Your task to perform on an android device: Empty the shopping cart on costco. Add "jbl charge 4" to the cart on costco Image 0: 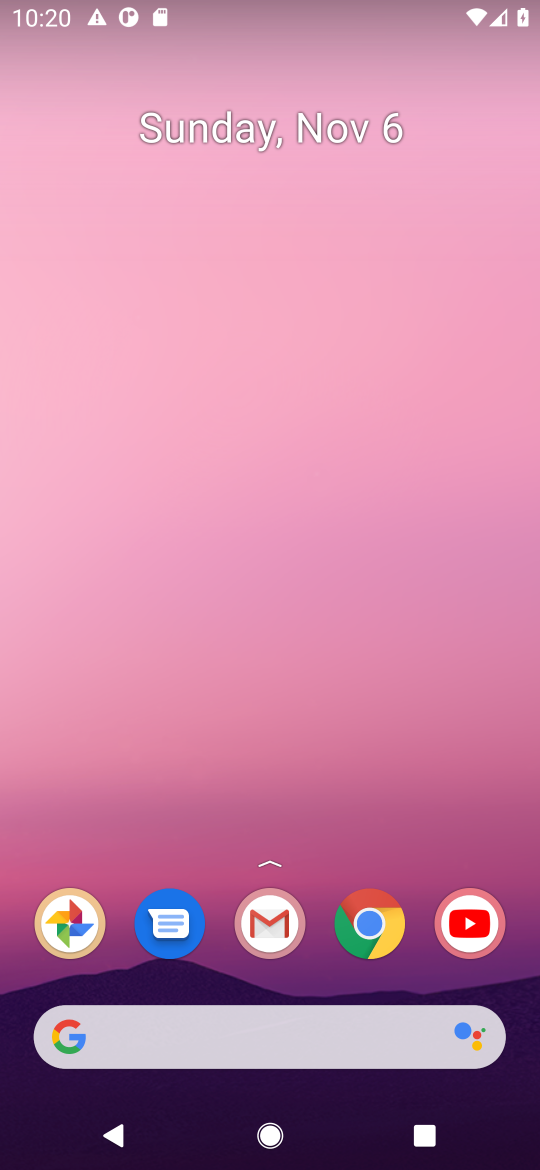
Step 0: click (373, 937)
Your task to perform on an android device: Empty the shopping cart on costco. Add "jbl charge 4" to the cart on costco Image 1: 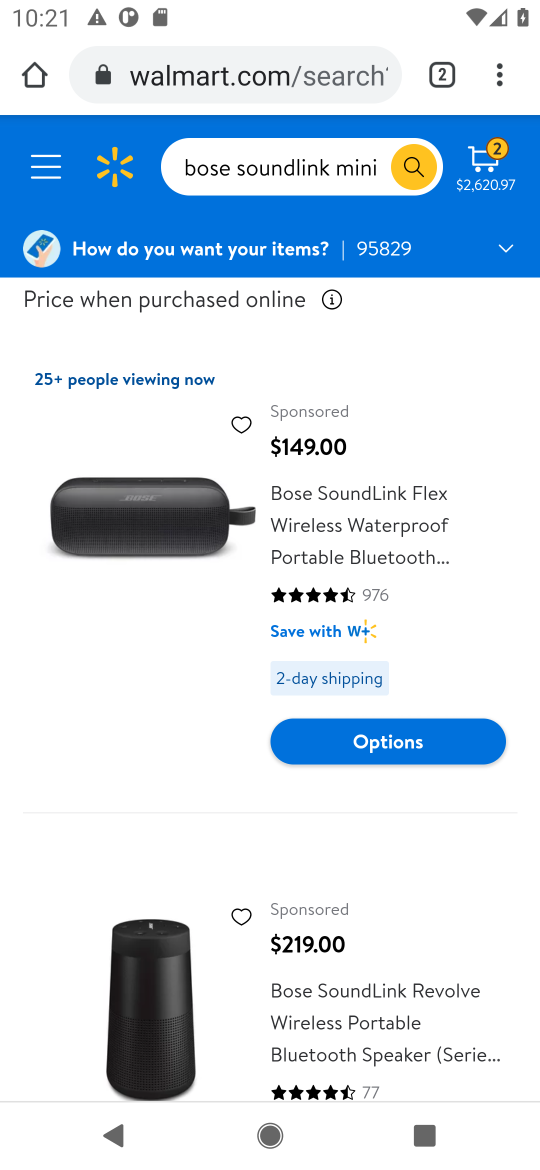
Step 1: click (214, 75)
Your task to perform on an android device: Empty the shopping cart on costco. Add "jbl charge 4" to the cart on costco Image 2: 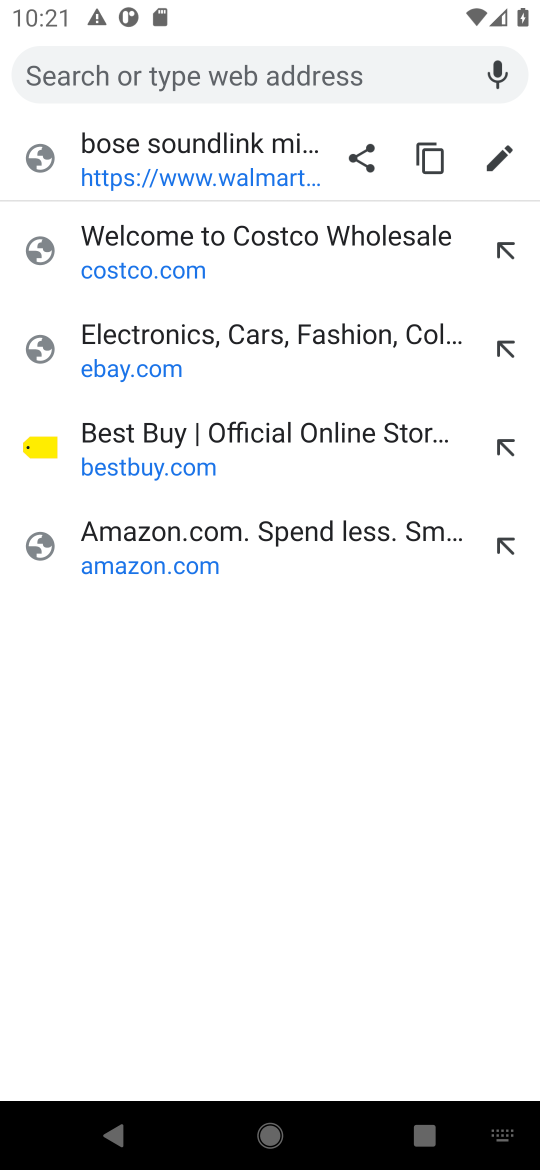
Step 2: click (166, 276)
Your task to perform on an android device: Empty the shopping cart on costco. Add "jbl charge 4" to the cart on costco Image 3: 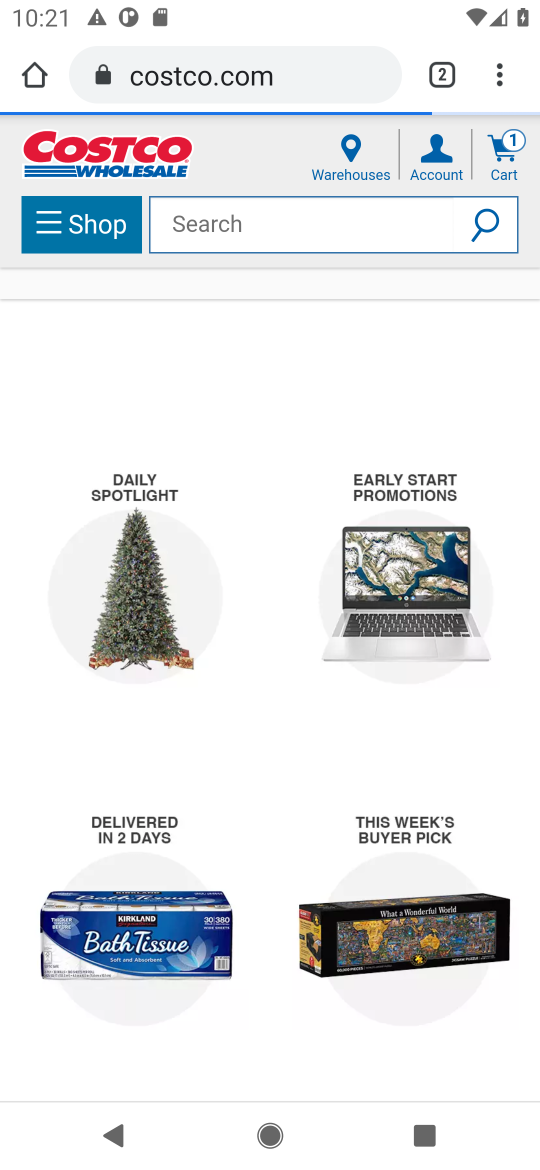
Step 3: click (514, 143)
Your task to perform on an android device: Empty the shopping cart on costco. Add "jbl charge 4" to the cart on costco Image 4: 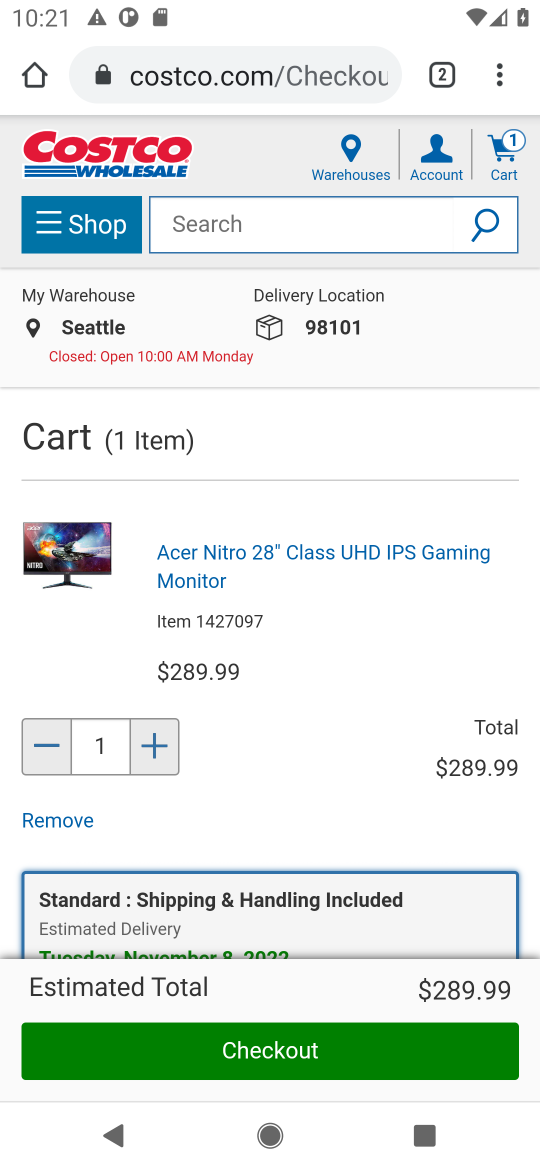
Step 4: drag from (259, 789) to (249, 319)
Your task to perform on an android device: Empty the shopping cart on costco. Add "jbl charge 4" to the cart on costco Image 5: 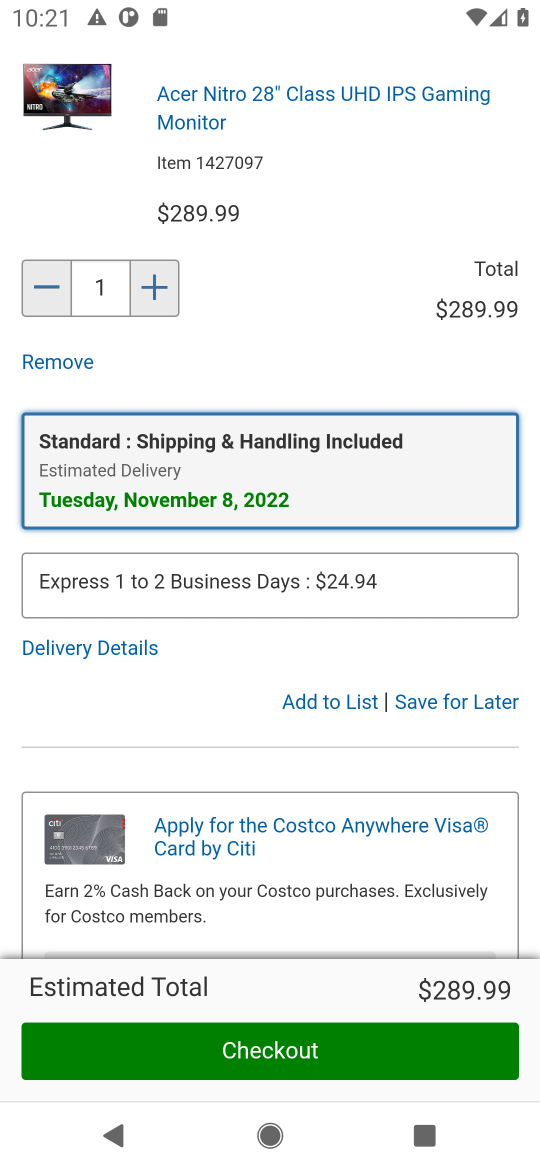
Step 5: click (477, 695)
Your task to perform on an android device: Empty the shopping cart on costco. Add "jbl charge 4" to the cart on costco Image 6: 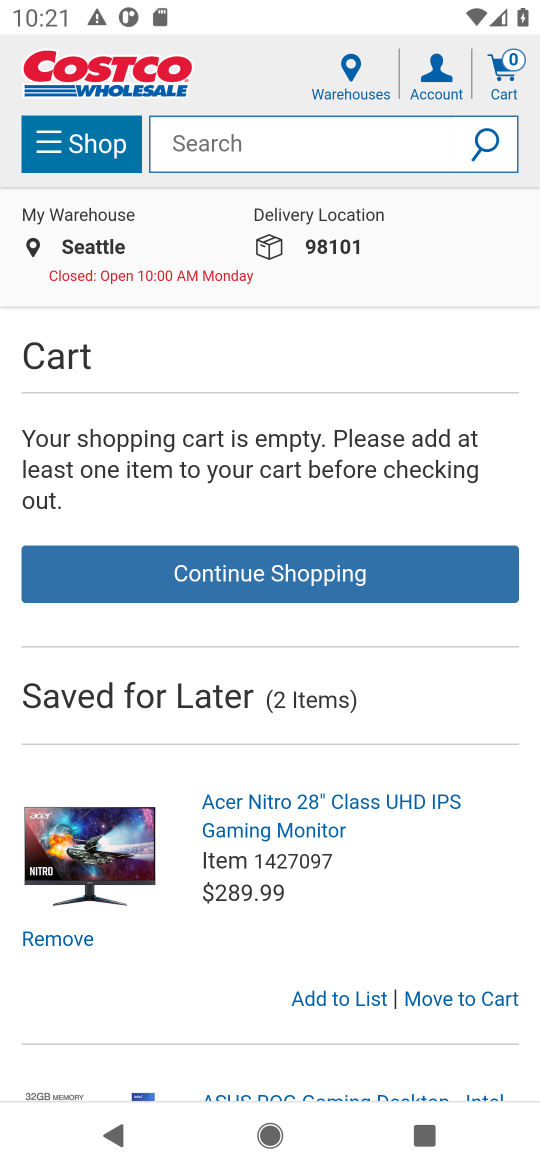
Step 6: click (343, 146)
Your task to perform on an android device: Empty the shopping cart on costco. Add "jbl charge 4" to the cart on costco Image 7: 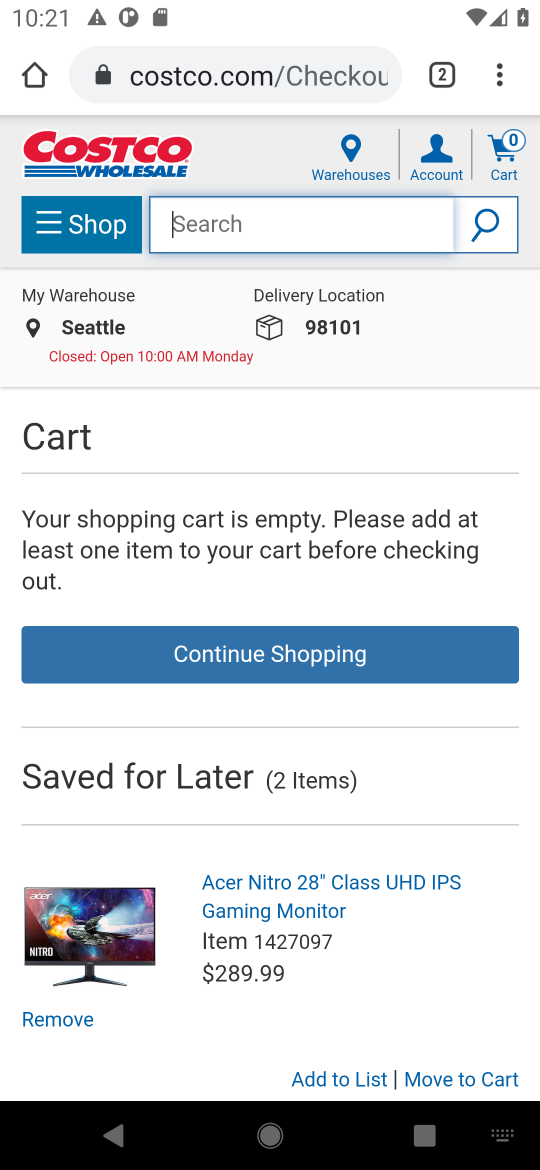
Step 7: type "jbl charge 4"
Your task to perform on an android device: Empty the shopping cart on costco. Add "jbl charge 4" to the cart on costco Image 8: 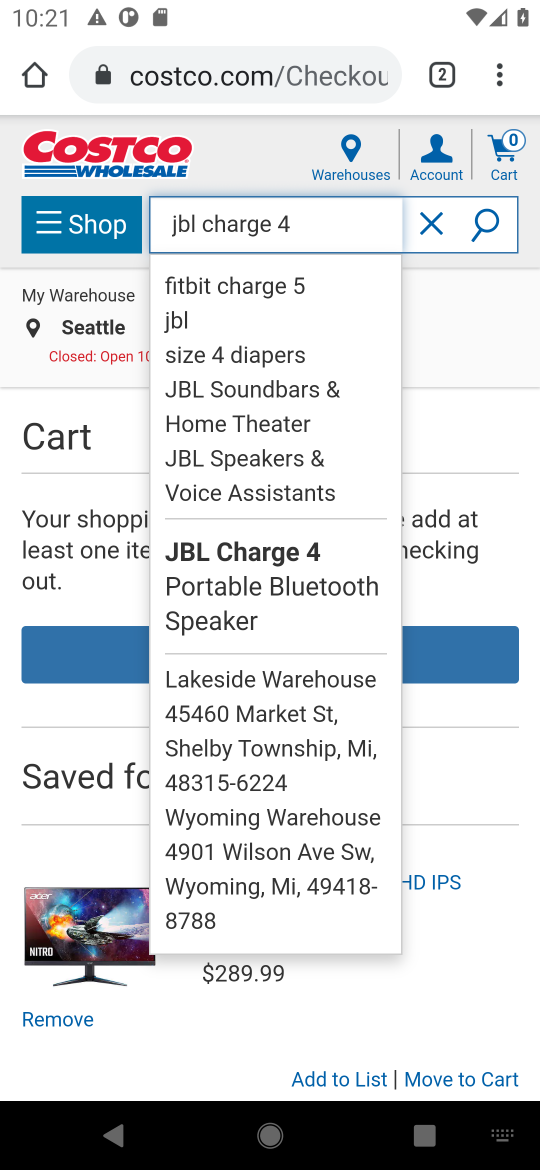
Step 8: click (492, 233)
Your task to perform on an android device: Empty the shopping cart on costco. Add "jbl charge 4" to the cart on costco Image 9: 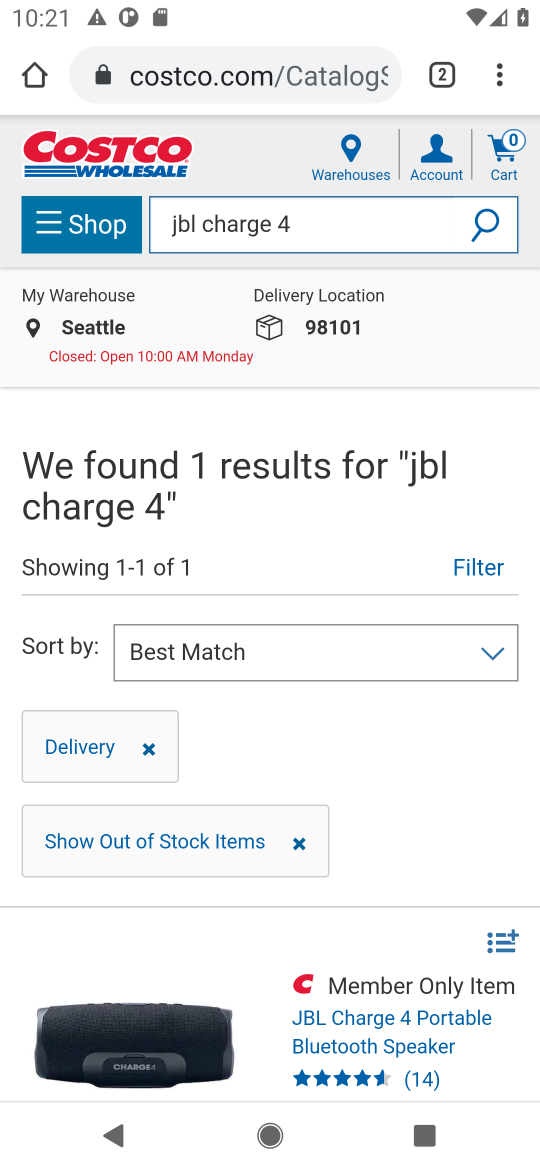
Step 9: drag from (401, 808) to (399, 403)
Your task to perform on an android device: Empty the shopping cart on costco. Add "jbl charge 4" to the cart on costco Image 10: 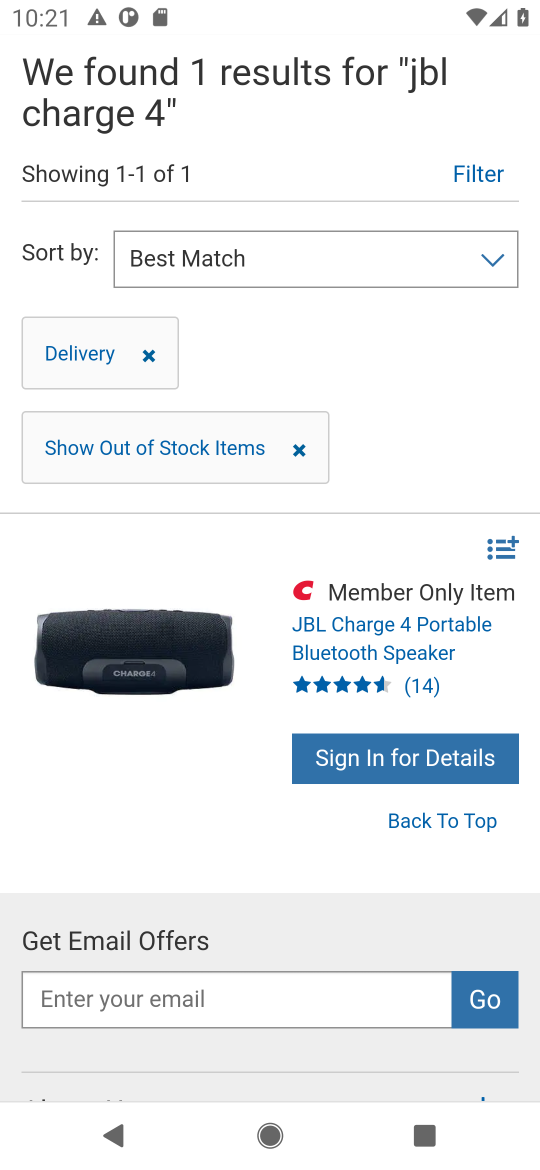
Step 10: click (347, 648)
Your task to perform on an android device: Empty the shopping cart on costco. Add "jbl charge 4" to the cart on costco Image 11: 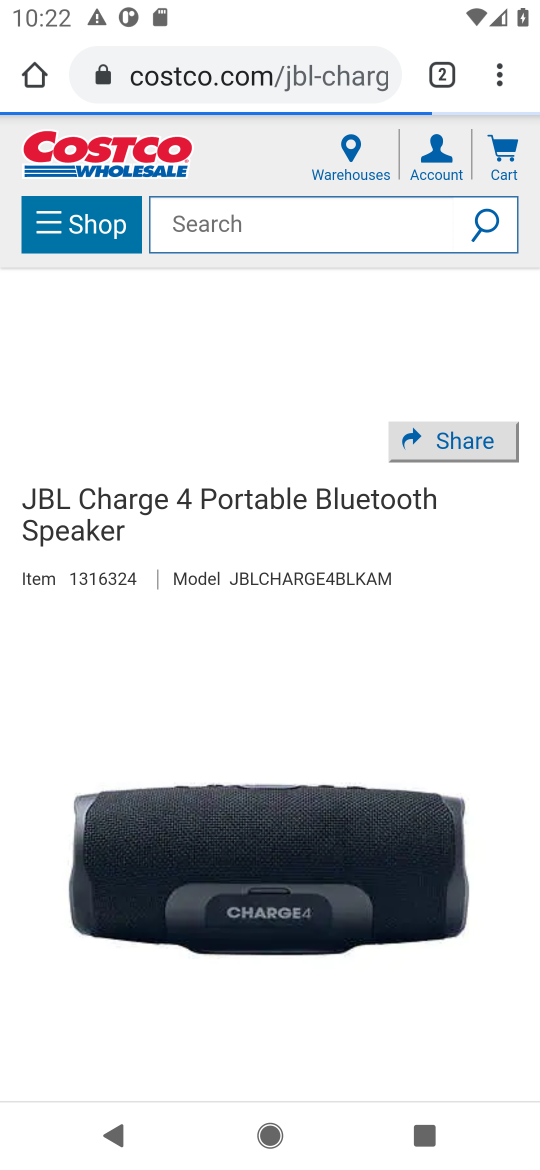
Step 11: press back button
Your task to perform on an android device: Empty the shopping cart on costco. Add "jbl charge 4" to the cart on costco Image 12: 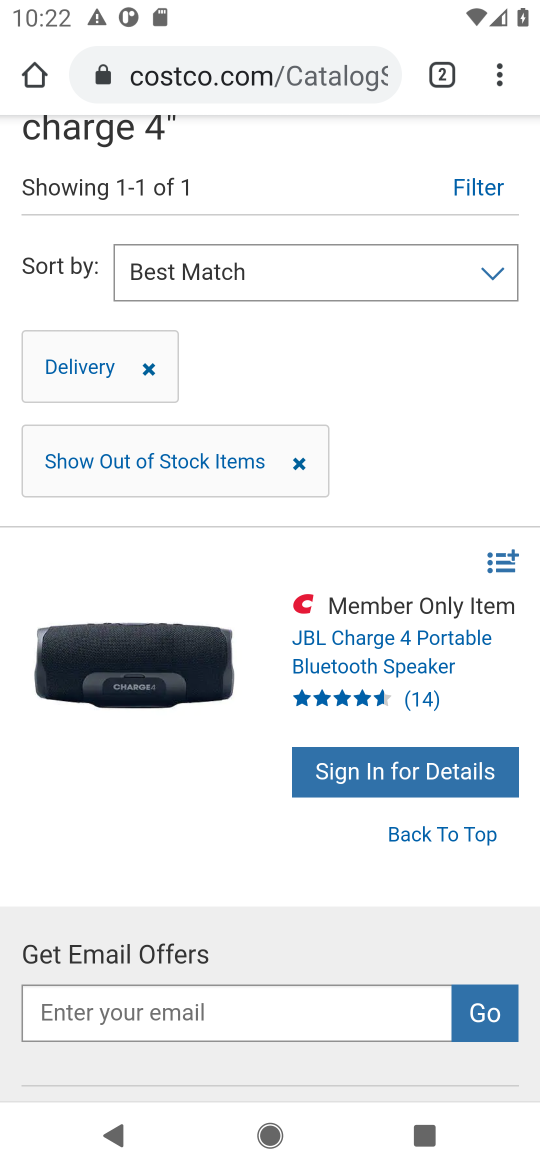
Step 12: drag from (283, 770) to (294, 373)
Your task to perform on an android device: Empty the shopping cart on costco. Add "jbl charge 4" to the cart on costco Image 13: 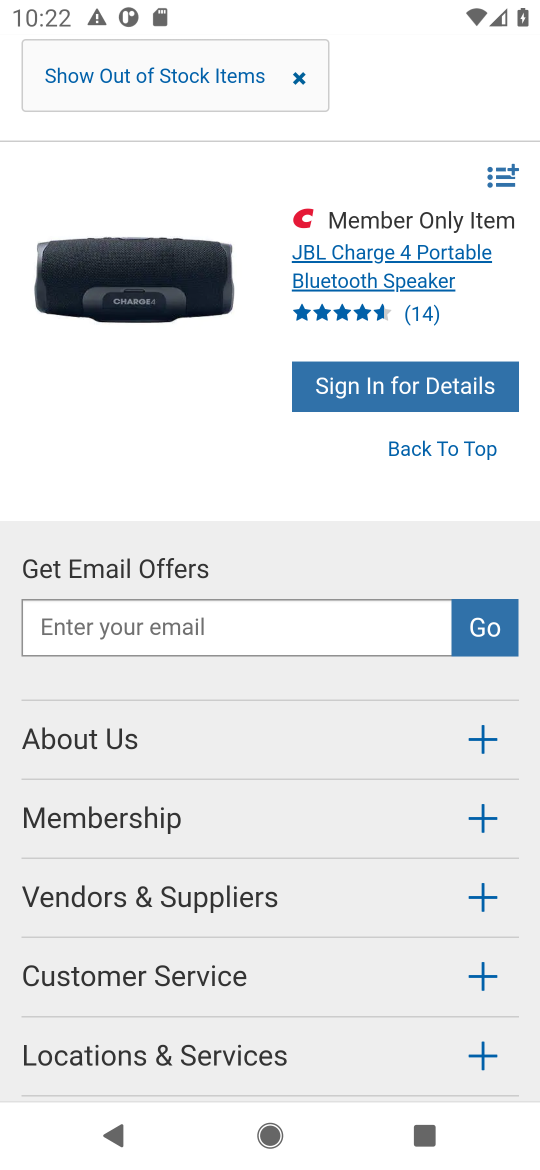
Step 13: drag from (255, 542) to (238, 862)
Your task to perform on an android device: Empty the shopping cart on costco. Add "jbl charge 4" to the cart on costco Image 14: 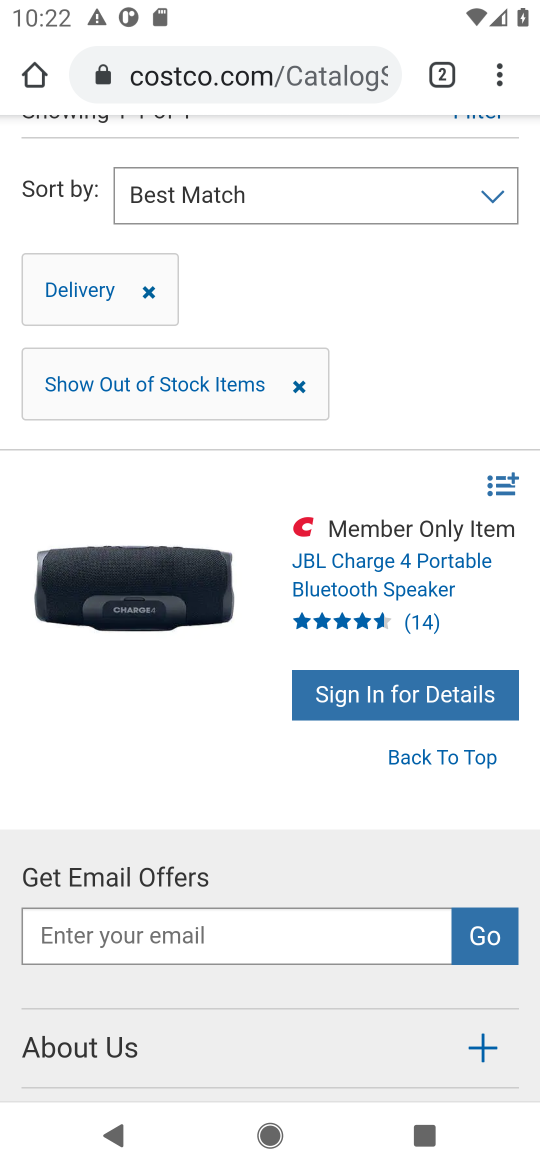
Step 14: click (402, 706)
Your task to perform on an android device: Empty the shopping cart on costco. Add "jbl charge 4" to the cart on costco Image 15: 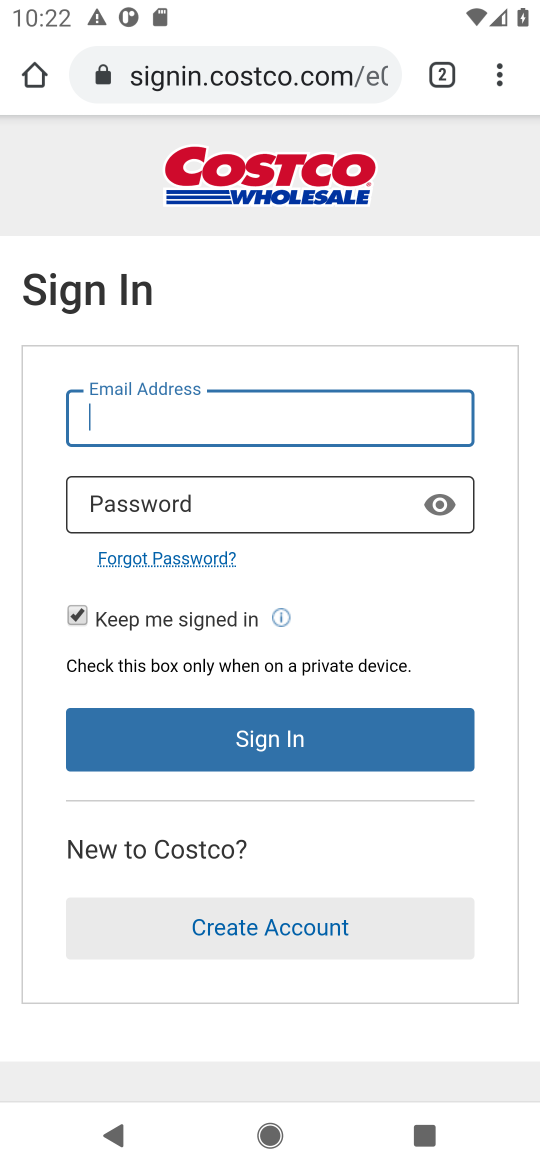
Step 15: task complete